Your task to perform on an android device: Open battery settings Image 0: 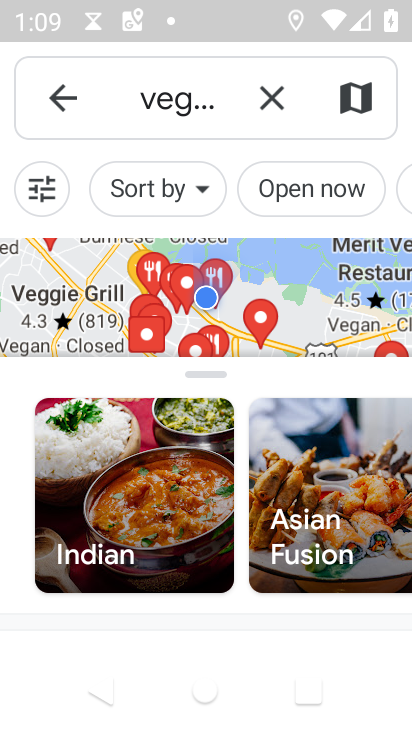
Step 0: press home button
Your task to perform on an android device: Open battery settings Image 1: 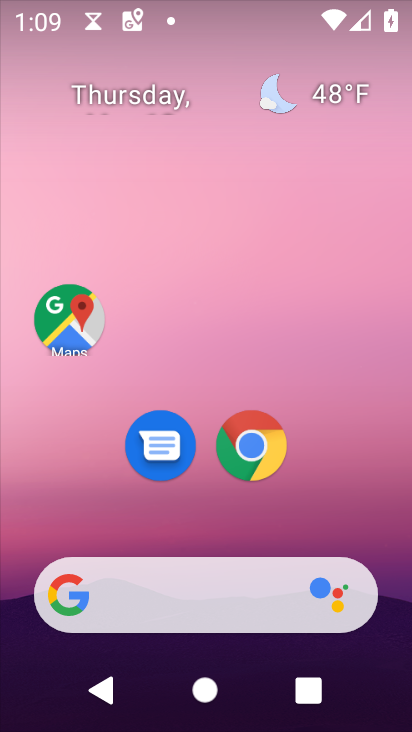
Step 1: drag from (295, 489) to (250, 128)
Your task to perform on an android device: Open battery settings Image 2: 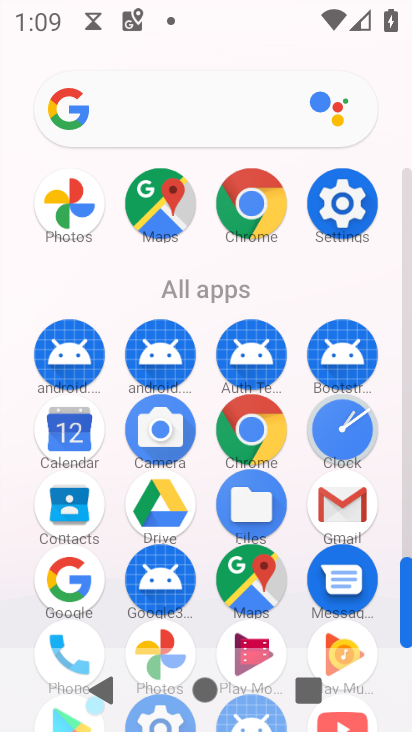
Step 2: click (341, 189)
Your task to perform on an android device: Open battery settings Image 3: 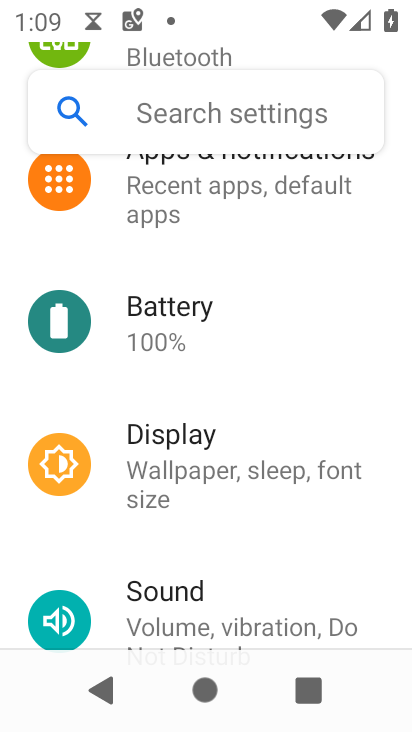
Step 3: click (192, 303)
Your task to perform on an android device: Open battery settings Image 4: 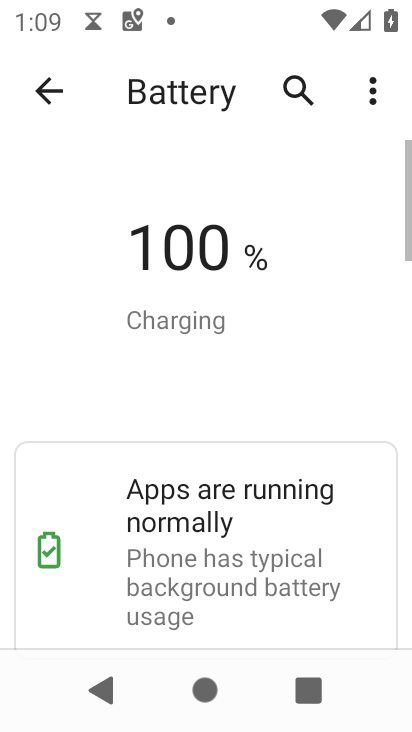
Step 4: task complete